Your task to perform on an android device: Open Google Maps Image 0: 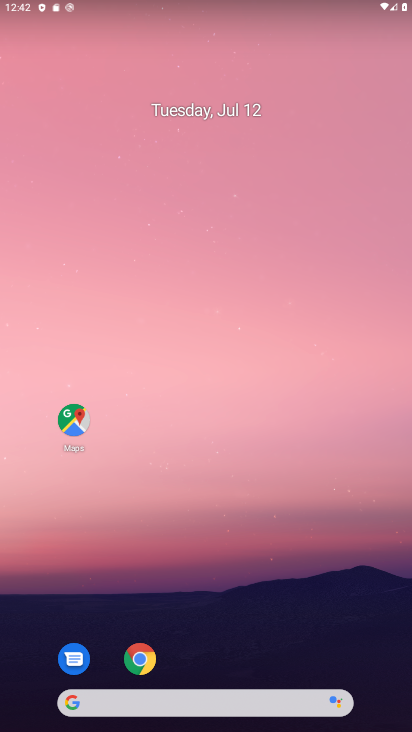
Step 0: drag from (248, 645) to (252, 52)
Your task to perform on an android device: Open Google Maps Image 1: 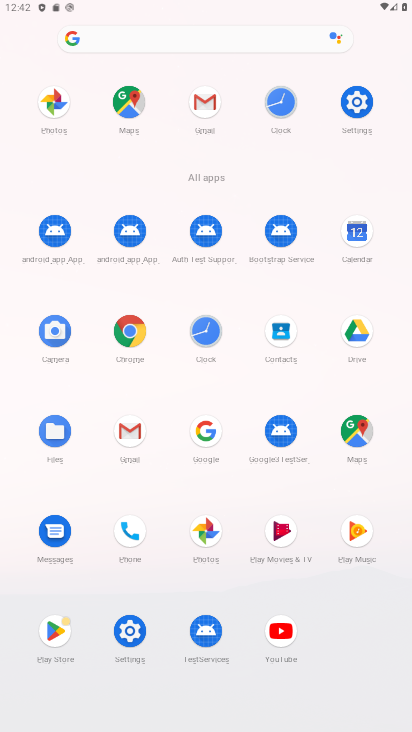
Step 1: click (355, 429)
Your task to perform on an android device: Open Google Maps Image 2: 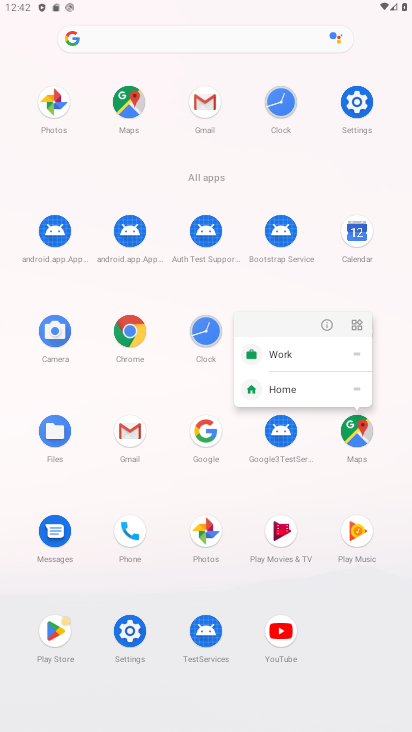
Step 2: click (321, 325)
Your task to perform on an android device: Open Google Maps Image 3: 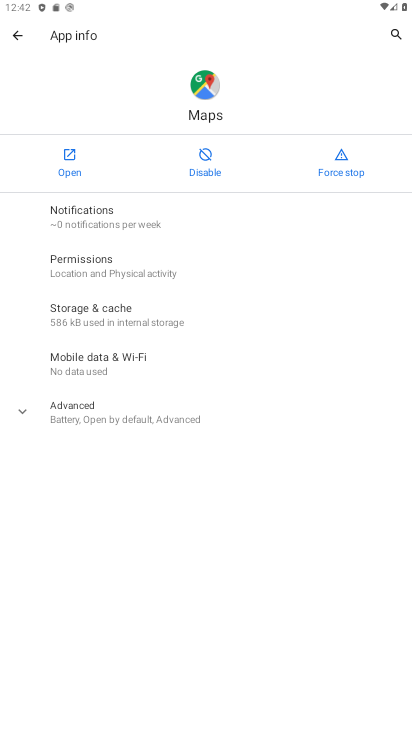
Step 3: click (64, 153)
Your task to perform on an android device: Open Google Maps Image 4: 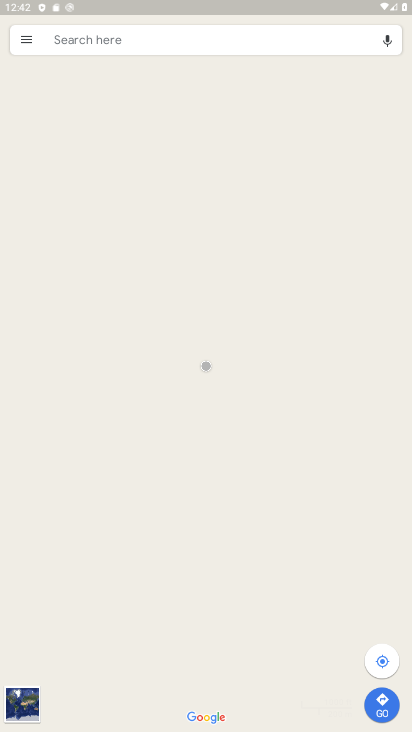
Step 4: task complete